Your task to perform on an android device: refresh tabs in the chrome app Image 0: 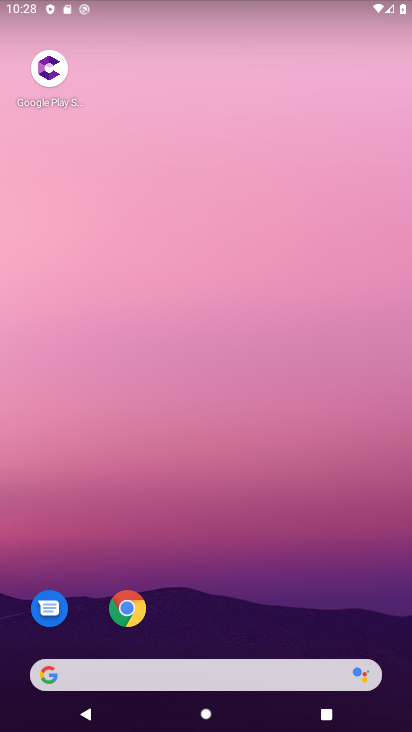
Step 0: click (131, 603)
Your task to perform on an android device: refresh tabs in the chrome app Image 1: 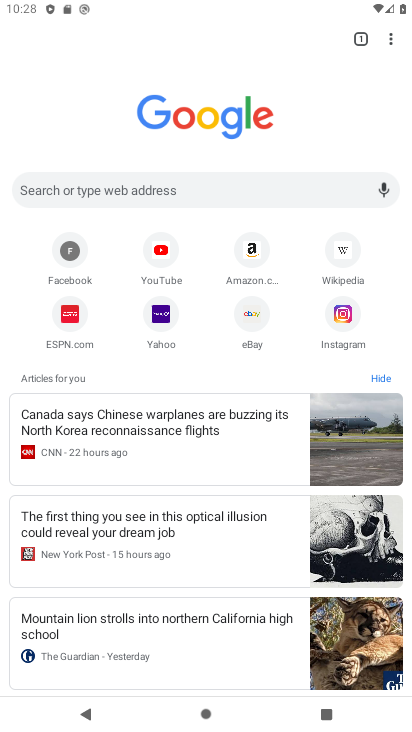
Step 1: click (391, 38)
Your task to perform on an android device: refresh tabs in the chrome app Image 2: 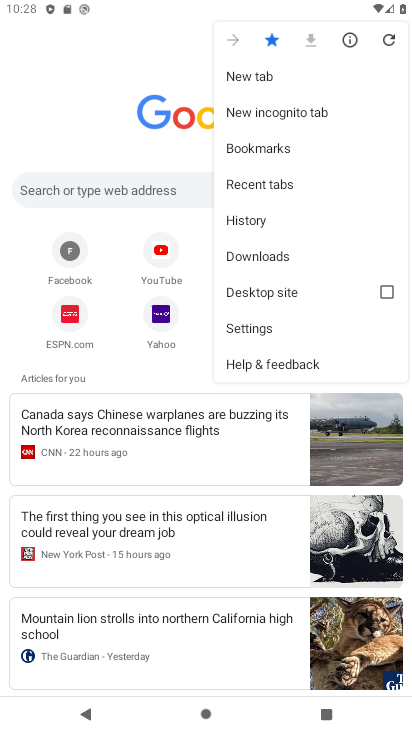
Step 2: click (391, 38)
Your task to perform on an android device: refresh tabs in the chrome app Image 3: 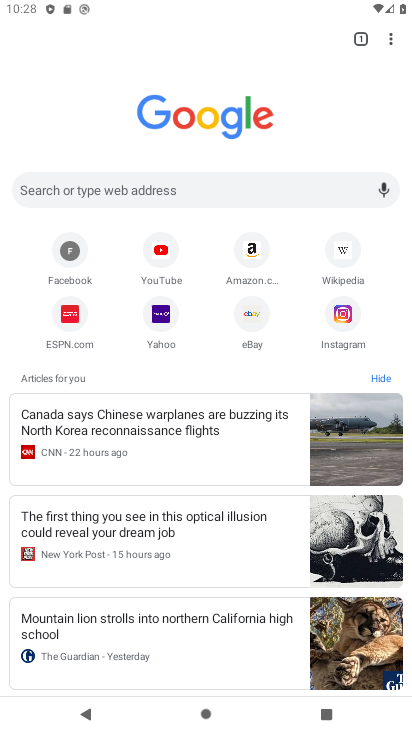
Step 3: task complete